Your task to perform on an android device: Search for a new hair product Image 0: 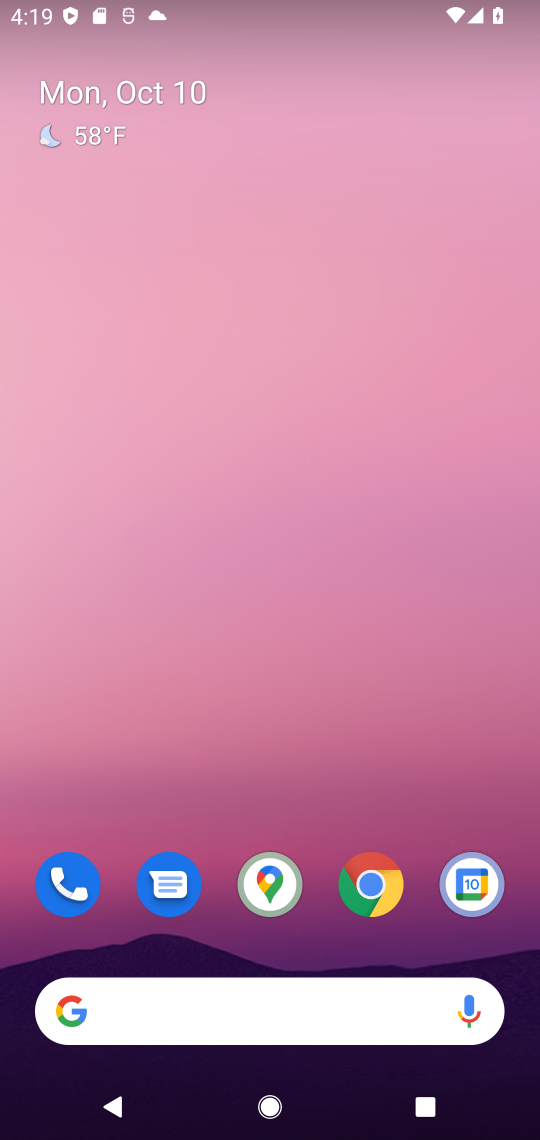
Step 0: click (157, 1000)
Your task to perform on an android device: Search for a new hair product Image 1: 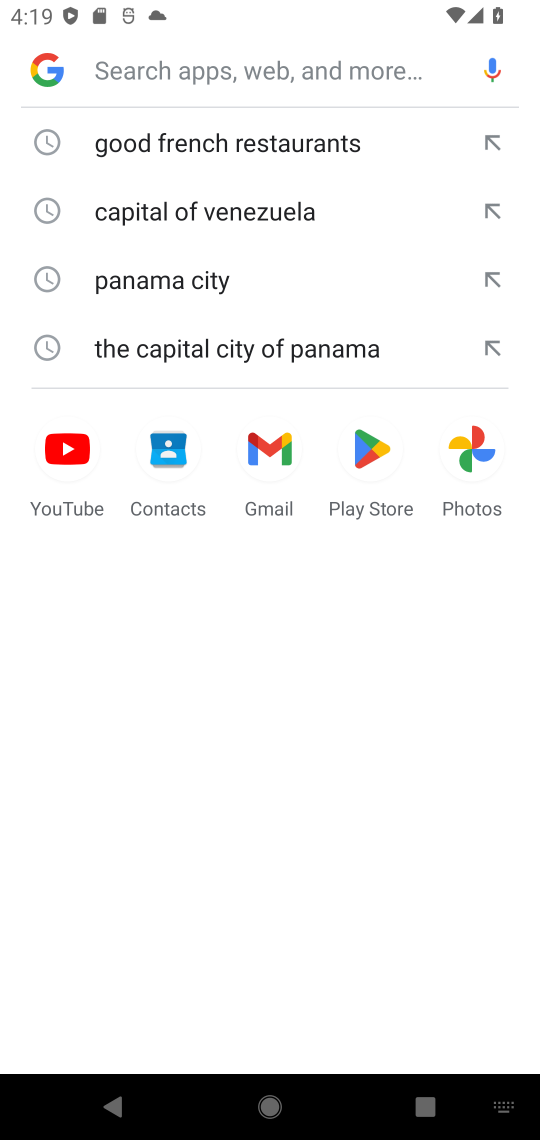
Step 1: type "new hair product"
Your task to perform on an android device: Search for a new hair product Image 2: 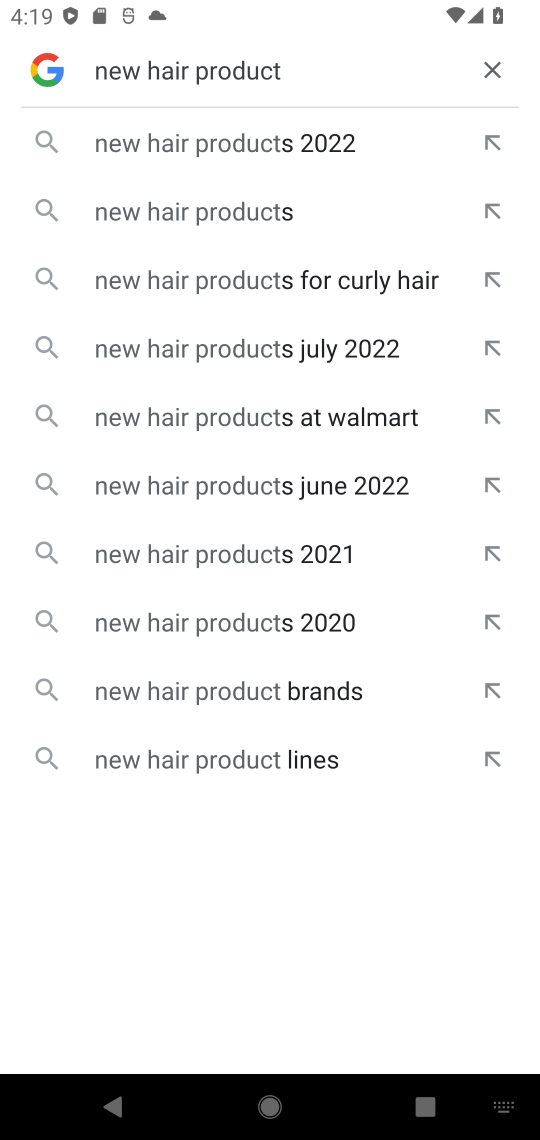
Step 2: click (212, 217)
Your task to perform on an android device: Search for a new hair product Image 3: 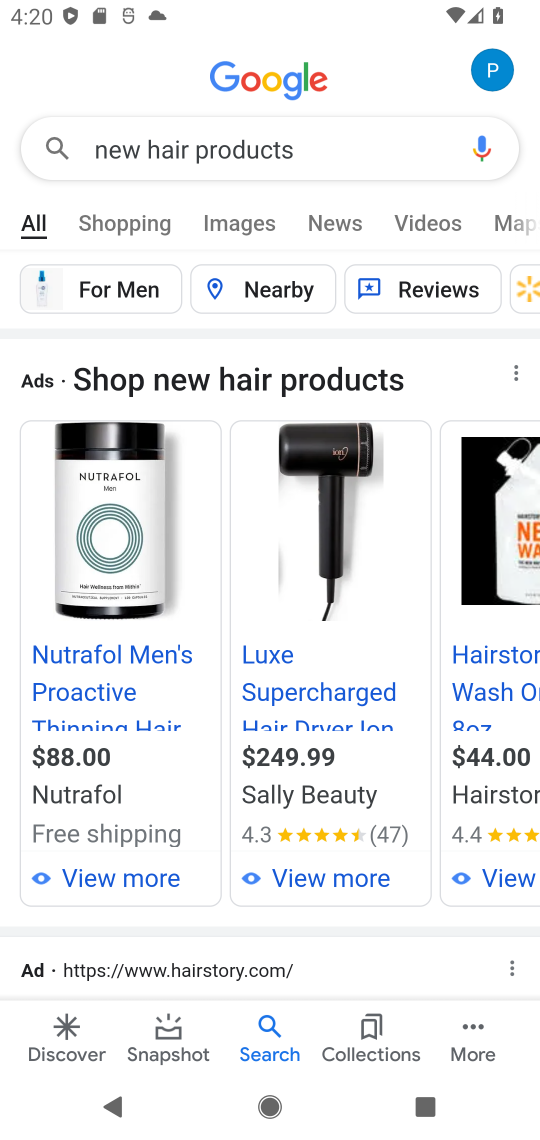
Step 3: task complete